Your task to perform on an android device: turn off translation in the chrome app Image 0: 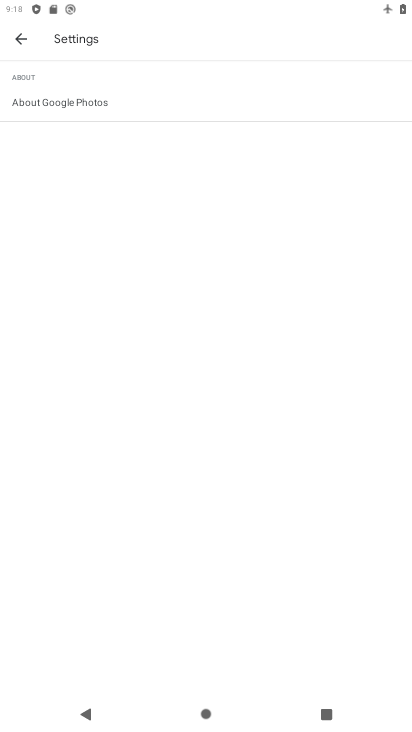
Step 0: press home button
Your task to perform on an android device: turn off translation in the chrome app Image 1: 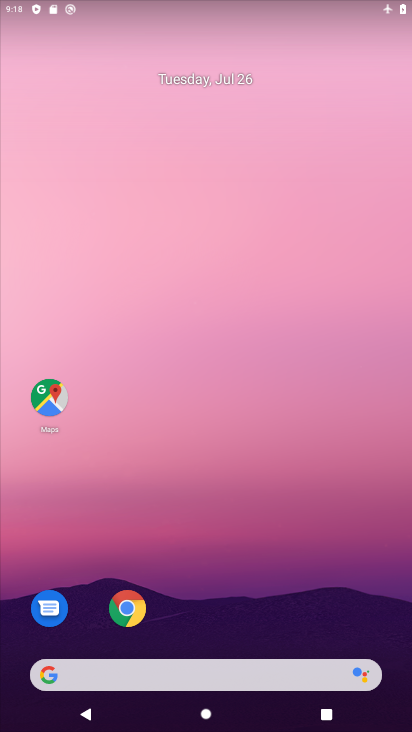
Step 1: click (123, 613)
Your task to perform on an android device: turn off translation in the chrome app Image 2: 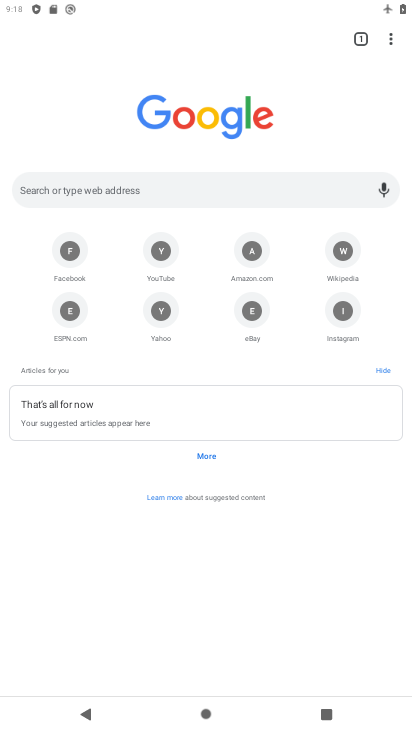
Step 2: click (385, 34)
Your task to perform on an android device: turn off translation in the chrome app Image 3: 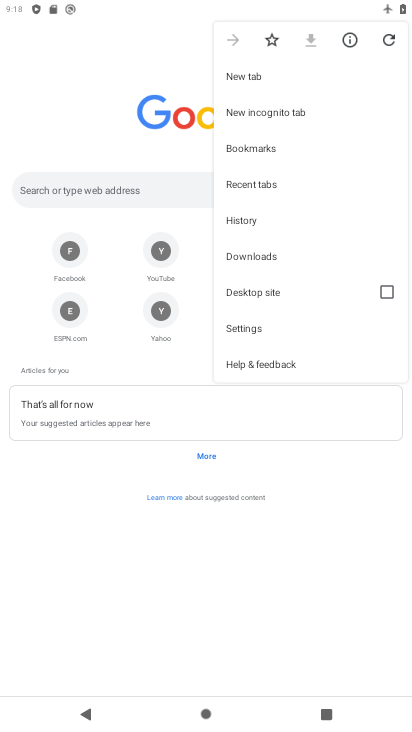
Step 3: click (263, 332)
Your task to perform on an android device: turn off translation in the chrome app Image 4: 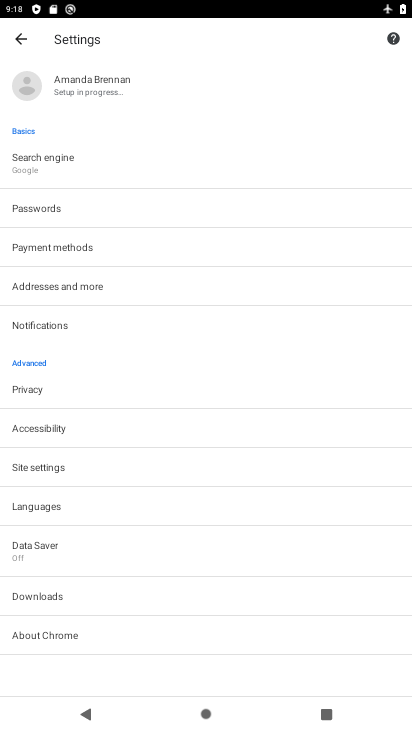
Step 4: click (79, 506)
Your task to perform on an android device: turn off translation in the chrome app Image 5: 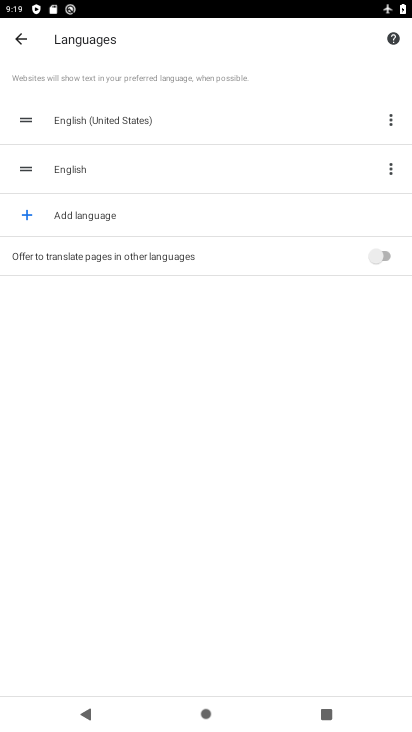
Step 5: task complete